Your task to perform on an android device: delete browsing data in the chrome app Image 0: 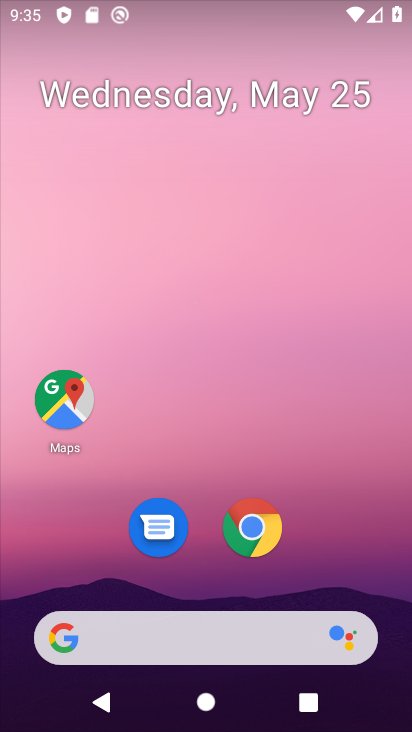
Step 0: click (253, 526)
Your task to perform on an android device: delete browsing data in the chrome app Image 1: 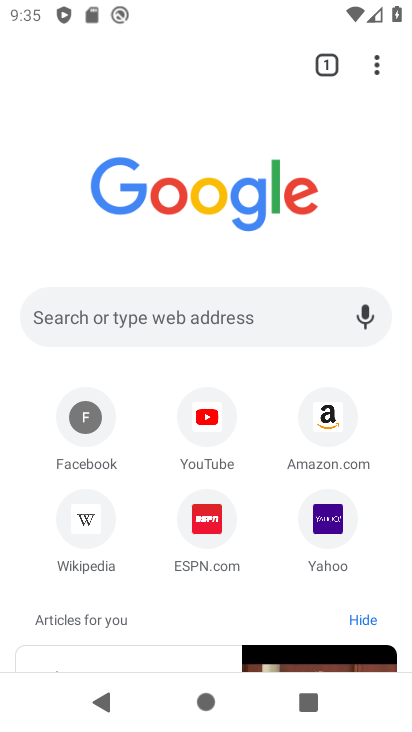
Step 1: click (378, 64)
Your task to perform on an android device: delete browsing data in the chrome app Image 2: 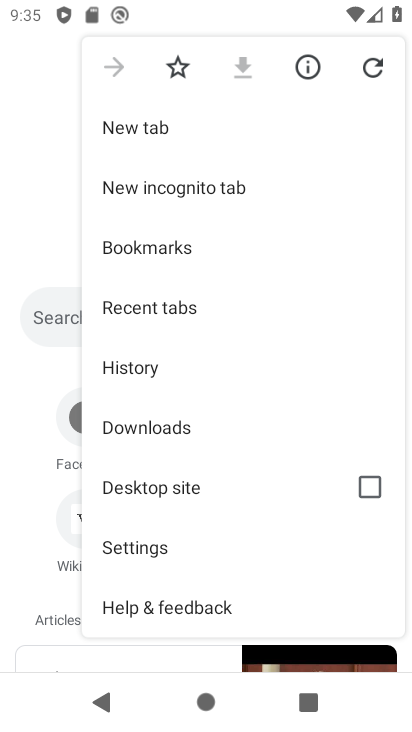
Step 2: click (152, 553)
Your task to perform on an android device: delete browsing data in the chrome app Image 3: 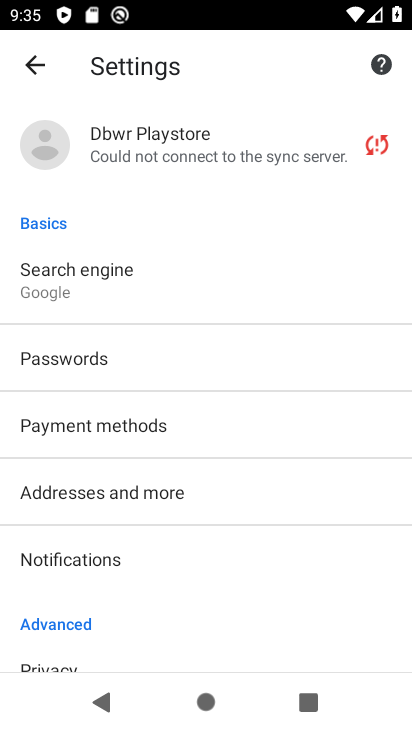
Step 3: drag from (134, 586) to (237, 429)
Your task to perform on an android device: delete browsing data in the chrome app Image 4: 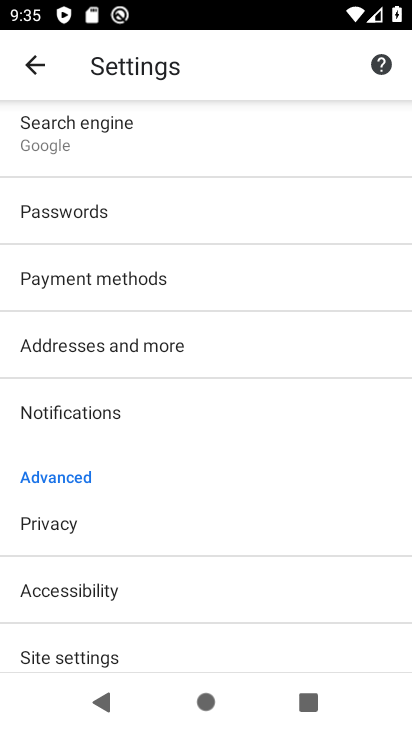
Step 4: click (62, 529)
Your task to perform on an android device: delete browsing data in the chrome app Image 5: 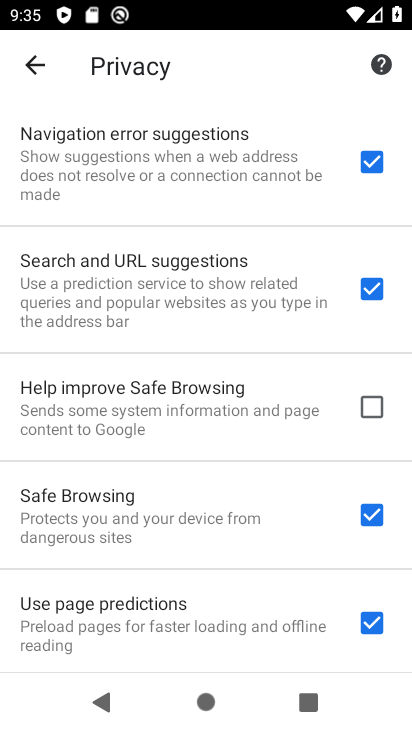
Step 5: drag from (203, 597) to (248, 474)
Your task to perform on an android device: delete browsing data in the chrome app Image 6: 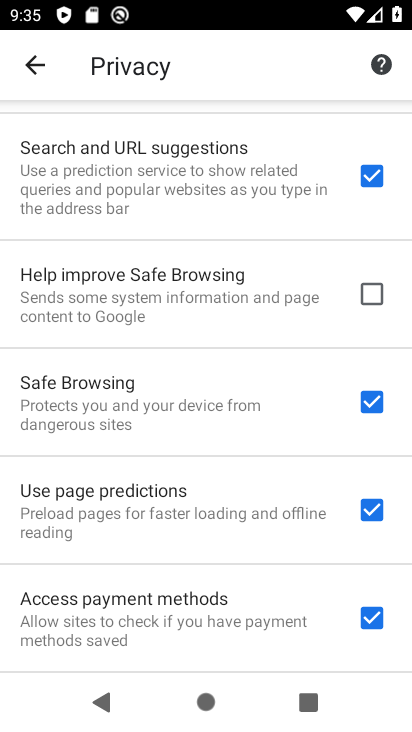
Step 6: drag from (187, 667) to (263, 538)
Your task to perform on an android device: delete browsing data in the chrome app Image 7: 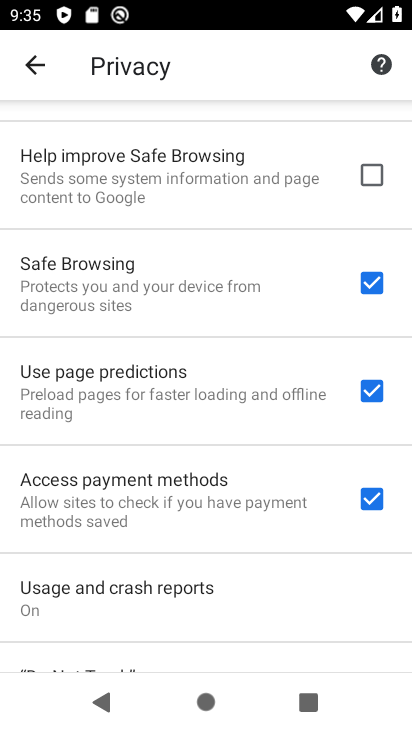
Step 7: drag from (181, 625) to (273, 497)
Your task to perform on an android device: delete browsing data in the chrome app Image 8: 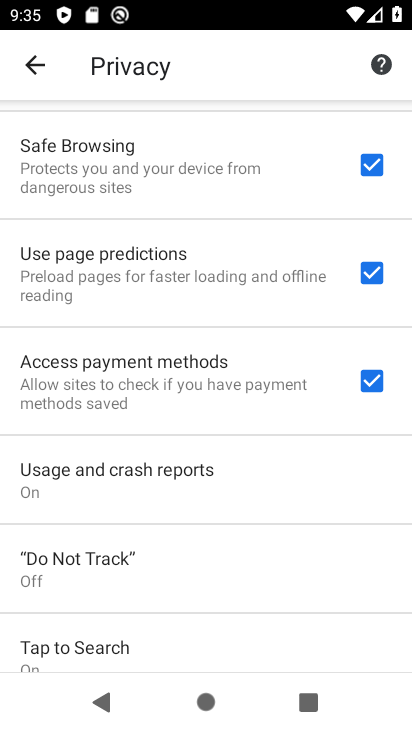
Step 8: drag from (178, 634) to (280, 504)
Your task to perform on an android device: delete browsing data in the chrome app Image 9: 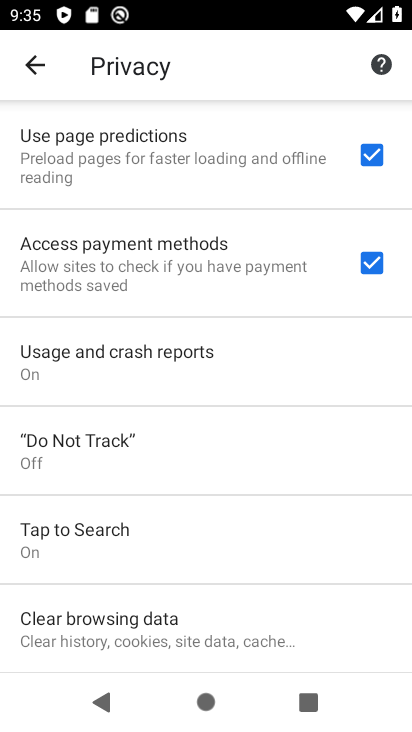
Step 9: click (182, 634)
Your task to perform on an android device: delete browsing data in the chrome app Image 10: 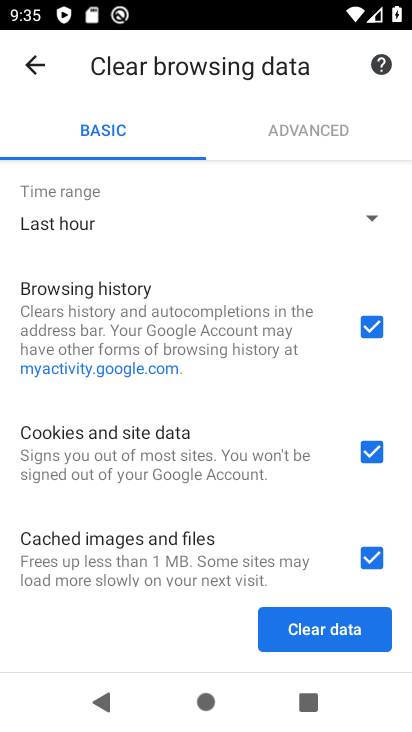
Step 10: click (314, 633)
Your task to perform on an android device: delete browsing data in the chrome app Image 11: 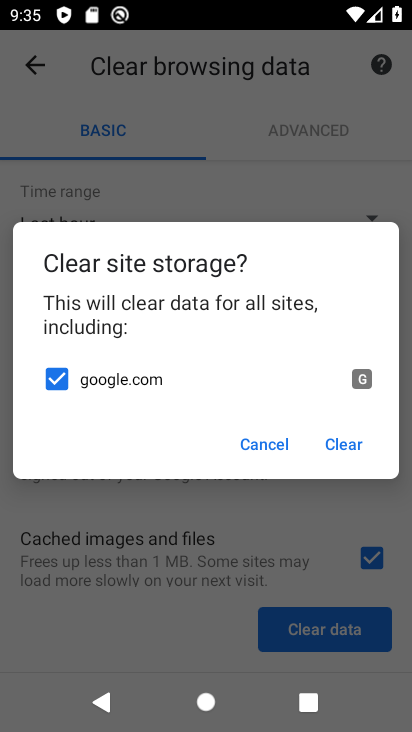
Step 11: click (365, 441)
Your task to perform on an android device: delete browsing data in the chrome app Image 12: 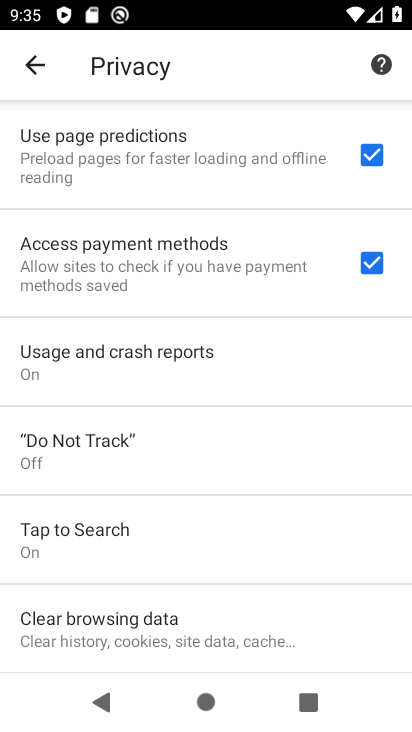
Step 12: task complete